Your task to perform on an android device: toggle sleep mode Image 0: 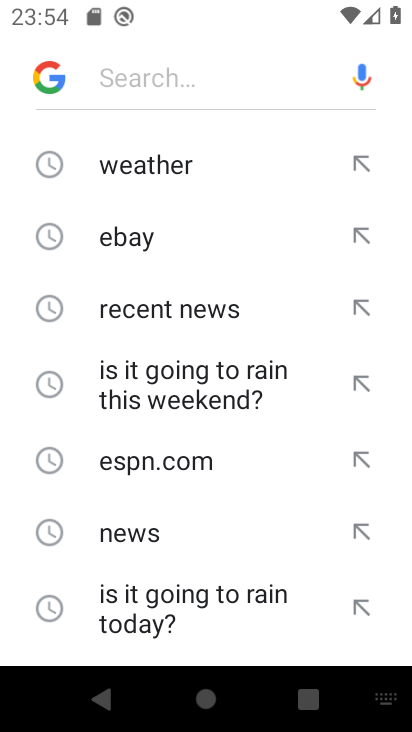
Step 0: press home button
Your task to perform on an android device: toggle sleep mode Image 1: 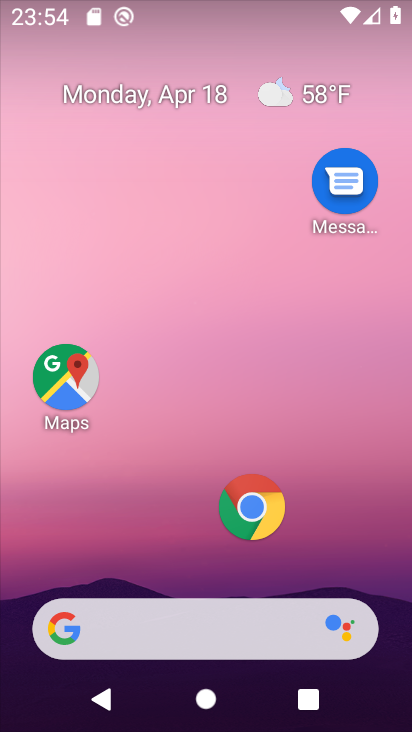
Step 1: drag from (190, 560) to (353, 715)
Your task to perform on an android device: toggle sleep mode Image 2: 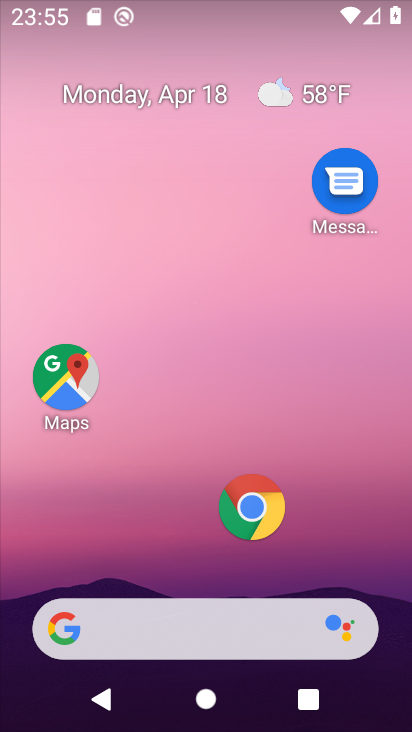
Step 2: drag from (205, 301) to (249, 1)
Your task to perform on an android device: toggle sleep mode Image 3: 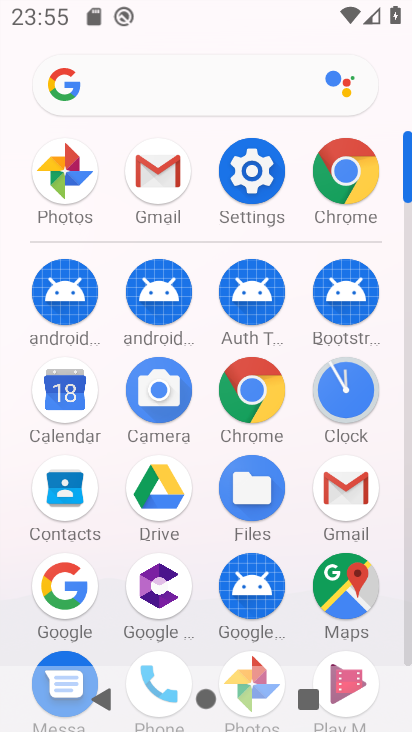
Step 3: click (250, 191)
Your task to perform on an android device: toggle sleep mode Image 4: 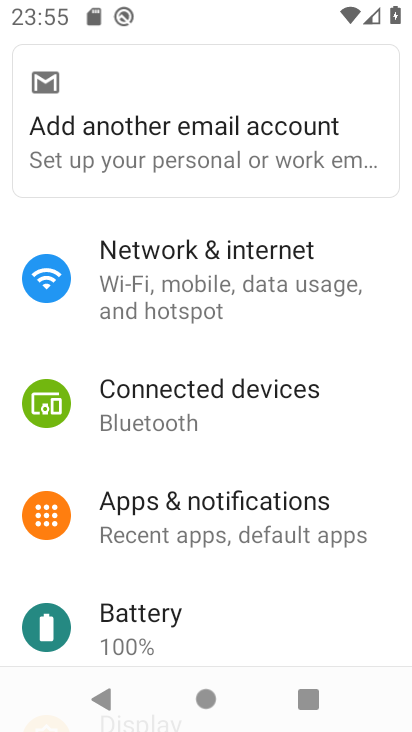
Step 4: drag from (212, 247) to (212, 635)
Your task to perform on an android device: toggle sleep mode Image 5: 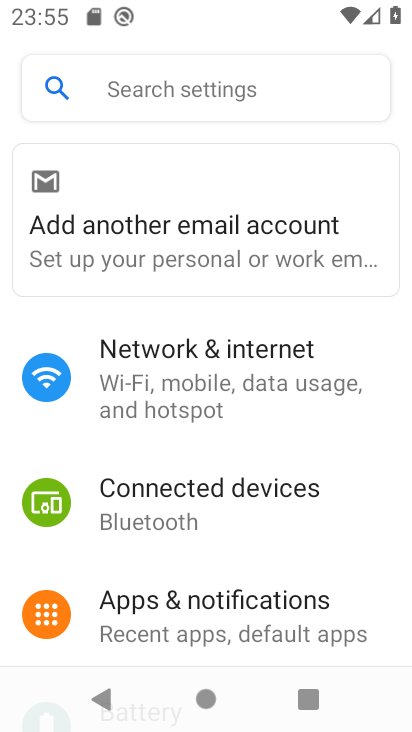
Step 5: click (178, 82)
Your task to perform on an android device: toggle sleep mode Image 6: 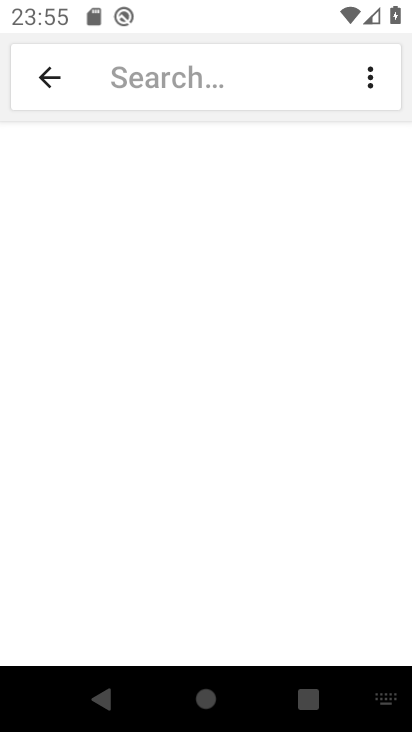
Step 6: type "sleep mode"
Your task to perform on an android device: toggle sleep mode Image 7: 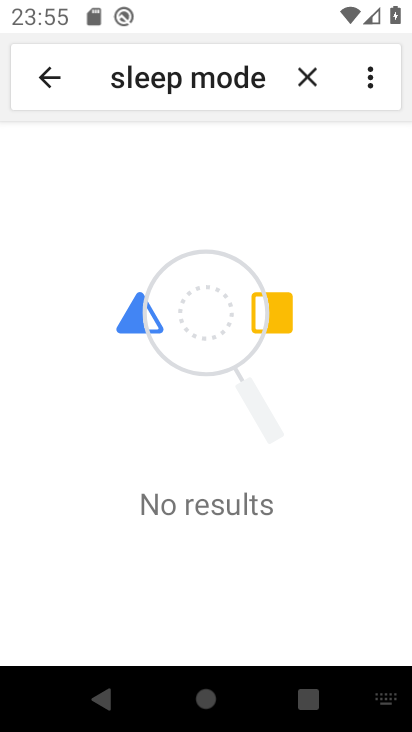
Step 7: task complete